Your task to perform on an android device: Open Reddit.com Image 0: 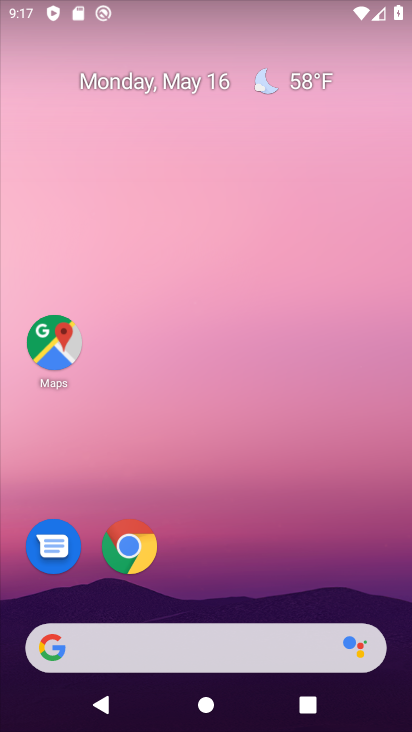
Step 0: click (127, 546)
Your task to perform on an android device: Open Reddit.com Image 1: 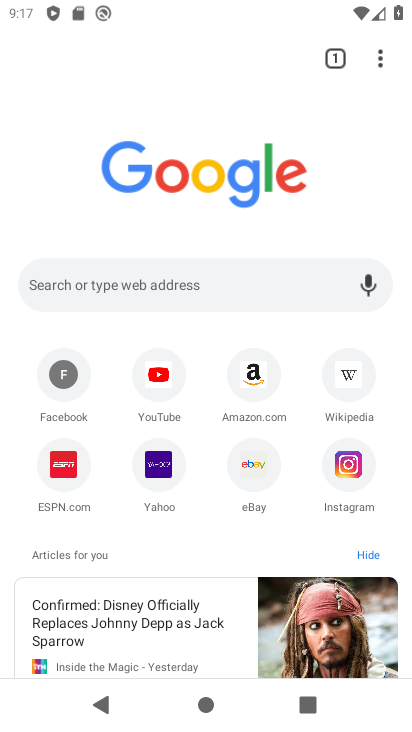
Step 1: click (189, 283)
Your task to perform on an android device: Open Reddit.com Image 2: 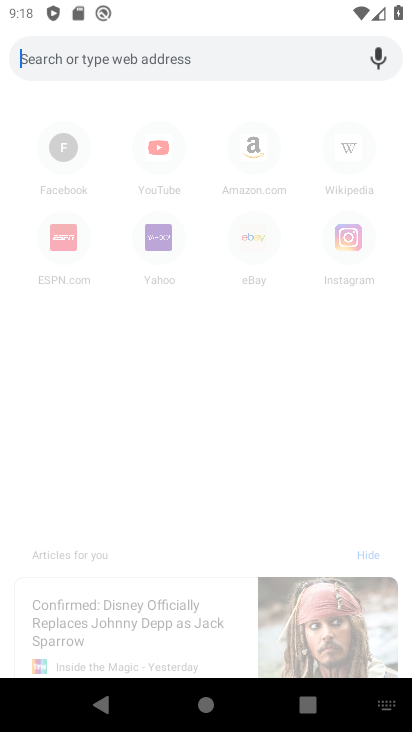
Step 2: type "Reddit.com"
Your task to perform on an android device: Open Reddit.com Image 3: 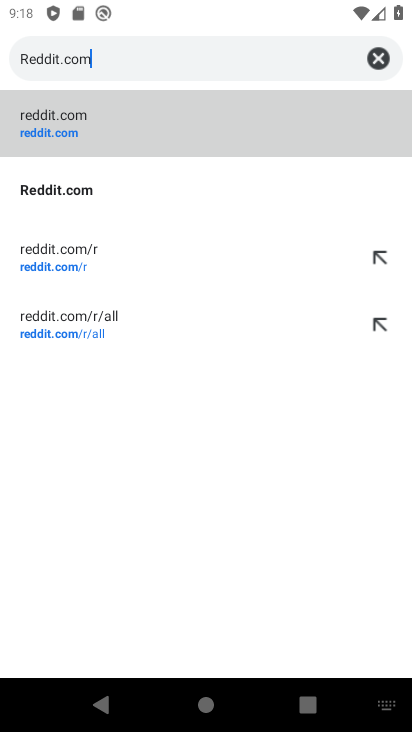
Step 3: click (76, 187)
Your task to perform on an android device: Open Reddit.com Image 4: 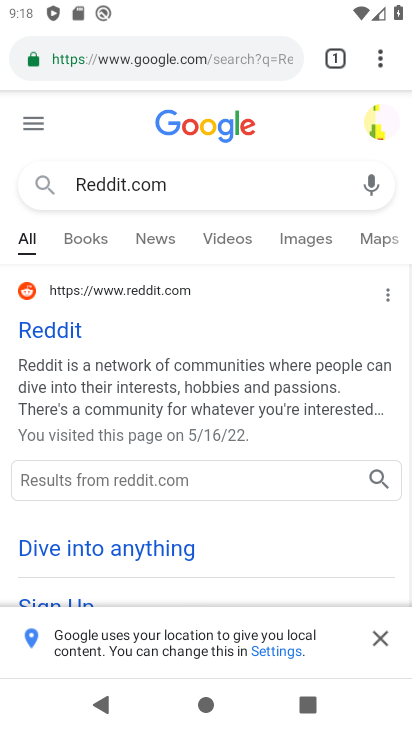
Step 4: click (378, 638)
Your task to perform on an android device: Open Reddit.com Image 5: 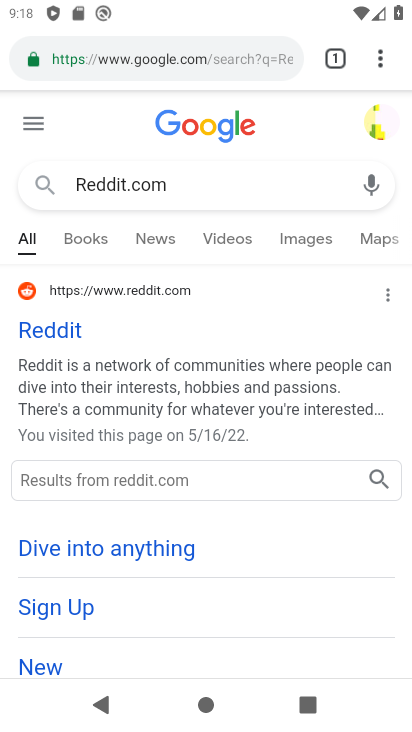
Step 5: click (41, 334)
Your task to perform on an android device: Open Reddit.com Image 6: 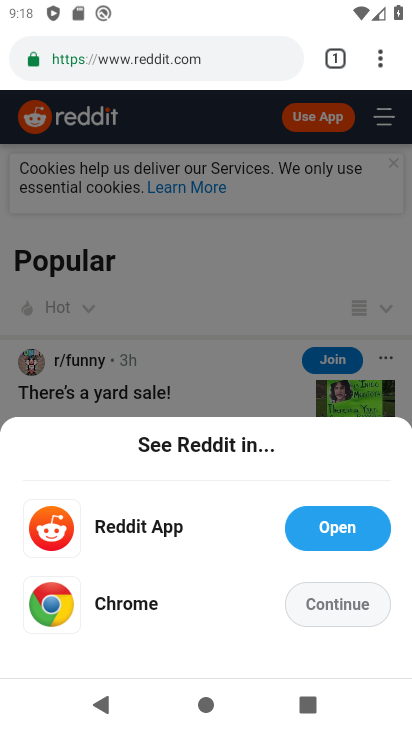
Step 6: task complete